Your task to perform on an android device: turn vacation reply on in the gmail app Image 0: 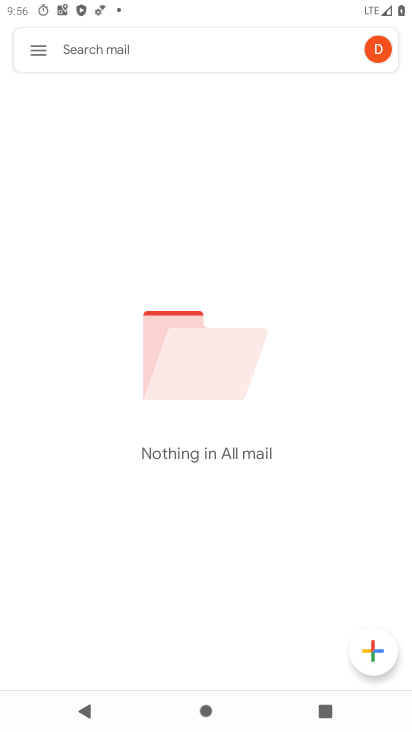
Step 0: click (36, 47)
Your task to perform on an android device: turn vacation reply on in the gmail app Image 1: 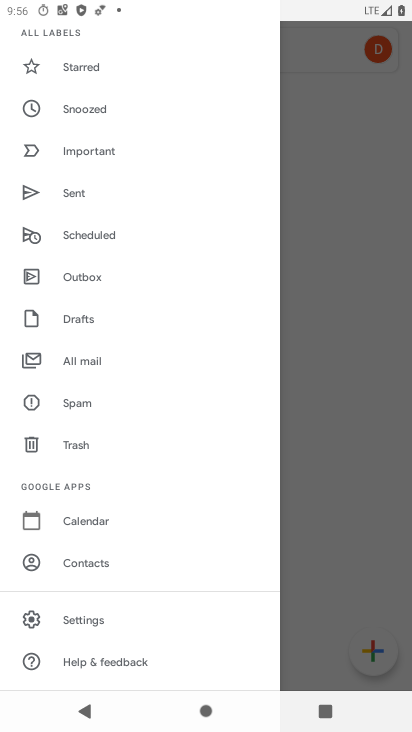
Step 1: click (92, 605)
Your task to perform on an android device: turn vacation reply on in the gmail app Image 2: 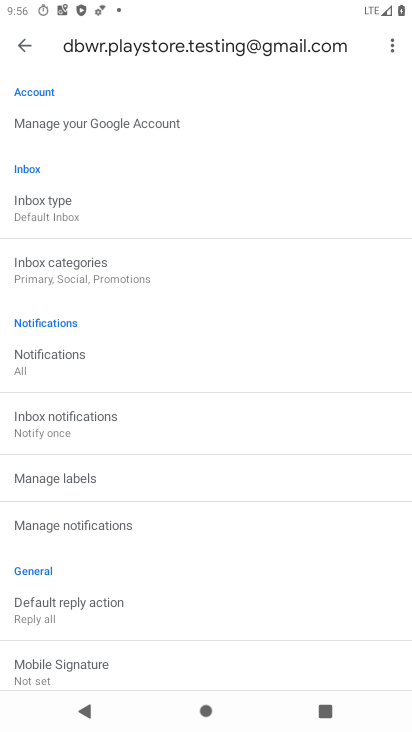
Step 2: drag from (153, 602) to (185, 180)
Your task to perform on an android device: turn vacation reply on in the gmail app Image 3: 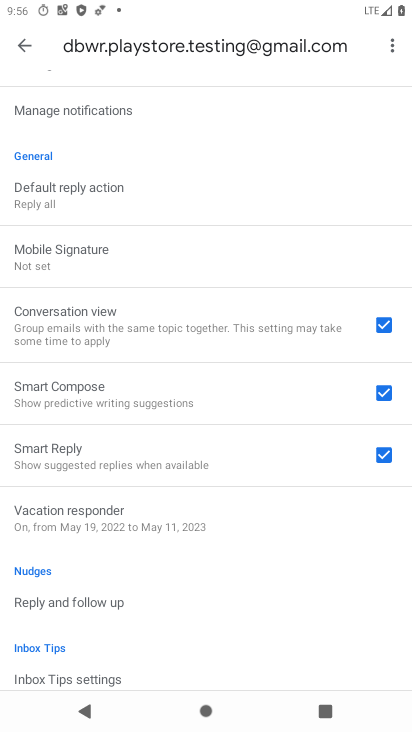
Step 3: click (101, 520)
Your task to perform on an android device: turn vacation reply on in the gmail app Image 4: 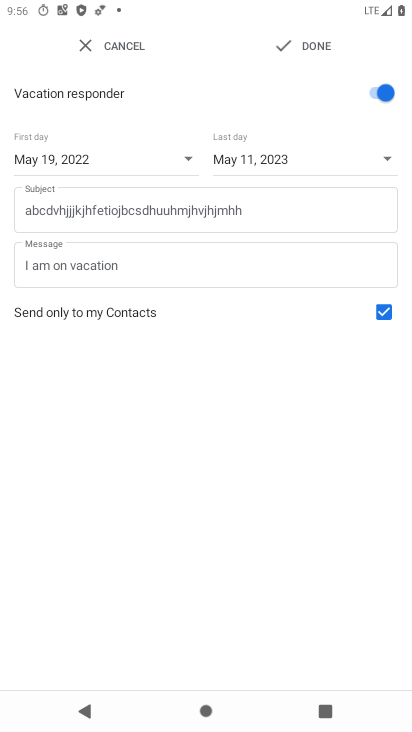
Step 4: click (290, 42)
Your task to perform on an android device: turn vacation reply on in the gmail app Image 5: 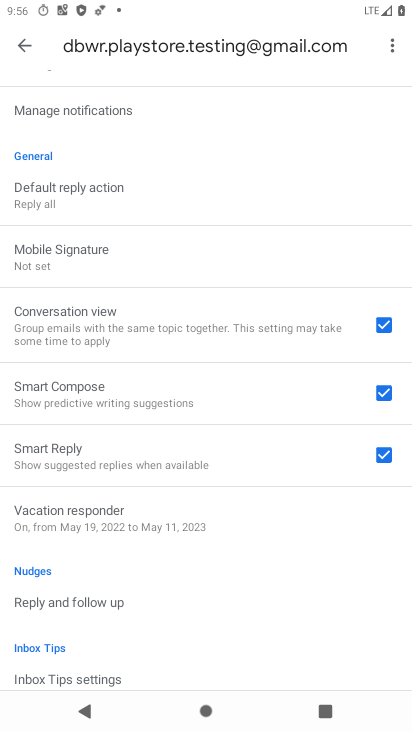
Step 5: task complete